Your task to perform on an android device: Open Youtube and go to the subscriptions tab Image 0: 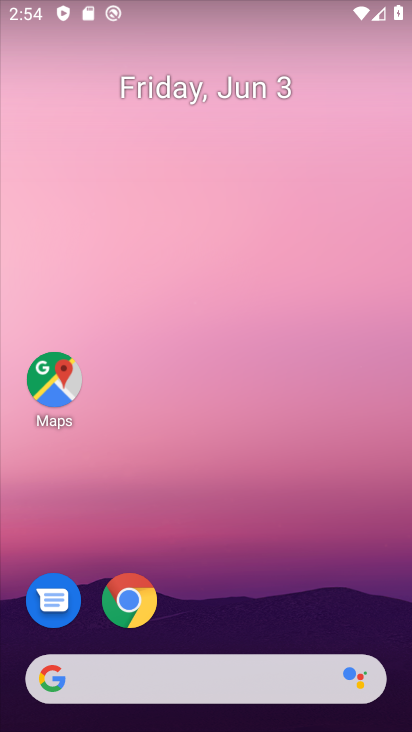
Step 0: drag from (290, 613) to (299, 206)
Your task to perform on an android device: Open Youtube and go to the subscriptions tab Image 1: 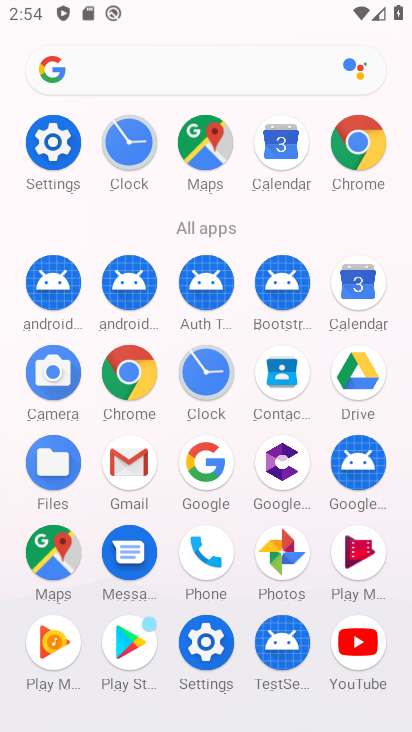
Step 1: click (348, 631)
Your task to perform on an android device: Open Youtube and go to the subscriptions tab Image 2: 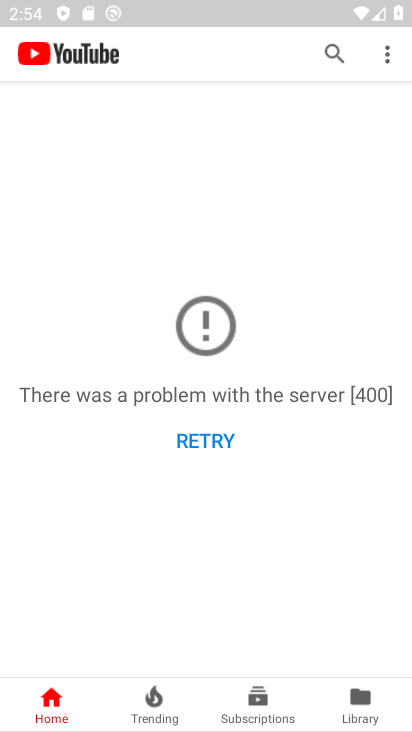
Step 2: click (260, 688)
Your task to perform on an android device: Open Youtube and go to the subscriptions tab Image 3: 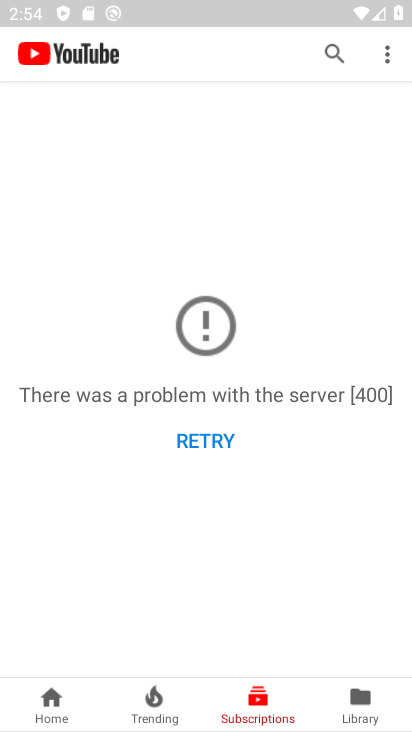
Step 3: task complete